Your task to perform on an android device: toggle data saver in the chrome app Image 0: 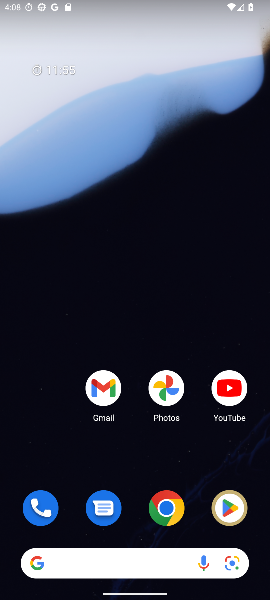
Step 0: drag from (130, 466) to (171, 149)
Your task to perform on an android device: toggle data saver in the chrome app Image 1: 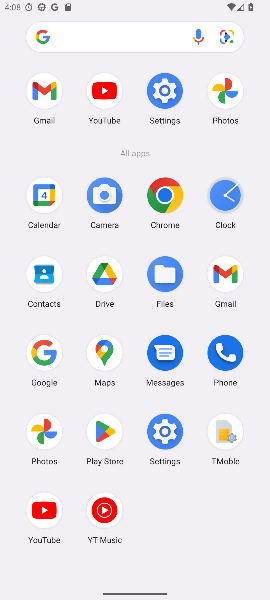
Step 1: click (165, 198)
Your task to perform on an android device: toggle data saver in the chrome app Image 2: 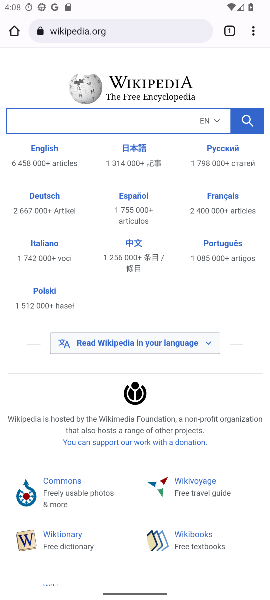
Step 2: drag from (97, 473) to (132, 183)
Your task to perform on an android device: toggle data saver in the chrome app Image 3: 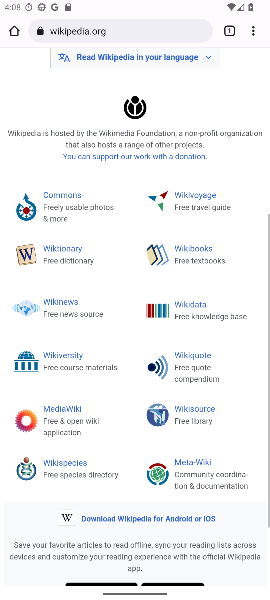
Step 3: drag from (132, 174) to (117, 545)
Your task to perform on an android device: toggle data saver in the chrome app Image 4: 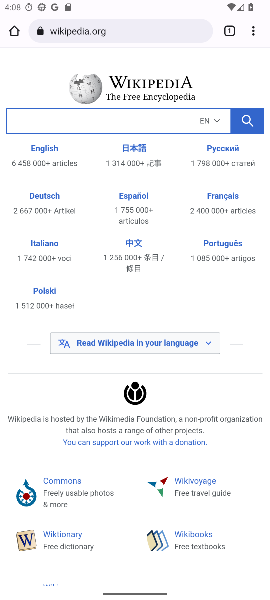
Step 4: drag from (252, 29) to (175, 391)
Your task to perform on an android device: toggle data saver in the chrome app Image 5: 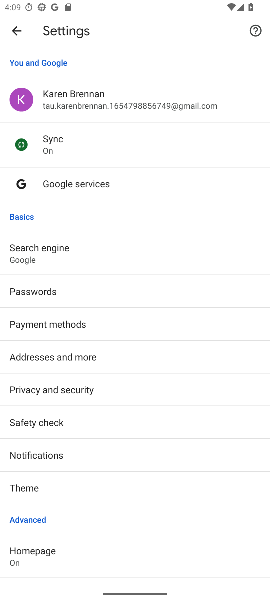
Step 5: drag from (75, 492) to (216, 125)
Your task to perform on an android device: toggle data saver in the chrome app Image 6: 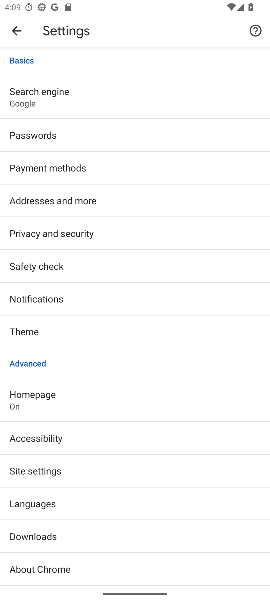
Step 6: drag from (69, 538) to (148, 376)
Your task to perform on an android device: toggle data saver in the chrome app Image 7: 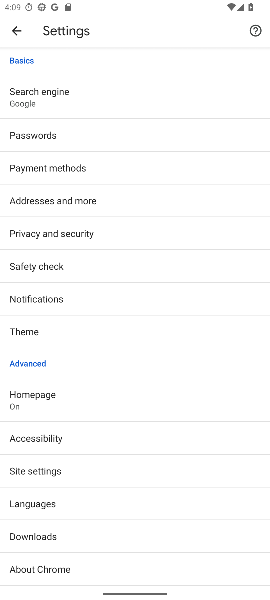
Step 7: drag from (118, 519) to (162, 254)
Your task to perform on an android device: toggle data saver in the chrome app Image 8: 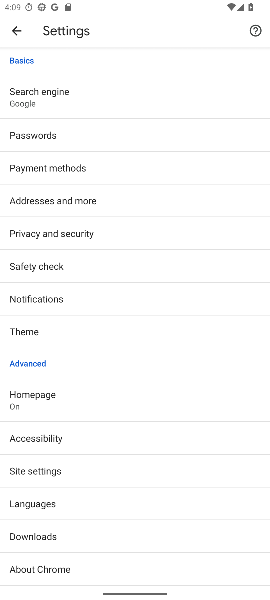
Step 8: drag from (100, 536) to (192, 255)
Your task to perform on an android device: toggle data saver in the chrome app Image 9: 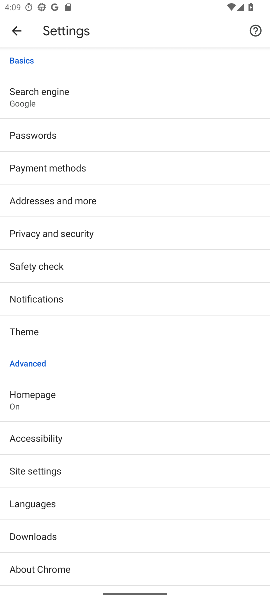
Step 9: click (63, 500)
Your task to perform on an android device: toggle data saver in the chrome app Image 10: 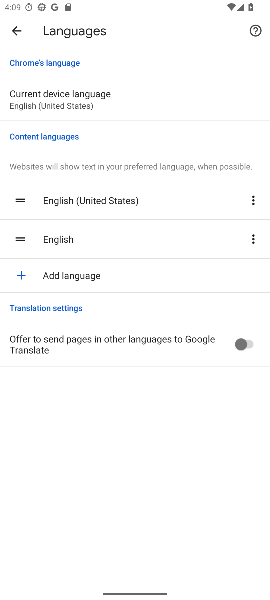
Step 10: task complete